Your task to perform on an android device: Search for duracell triple a on target.com, select the first entry, and add it to the cart. Image 0: 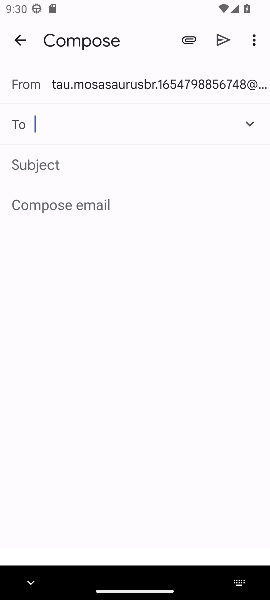
Step 0: press home button
Your task to perform on an android device: Search for duracell triple a on target.com, select the first entry, and add it to the cart. Image 1: 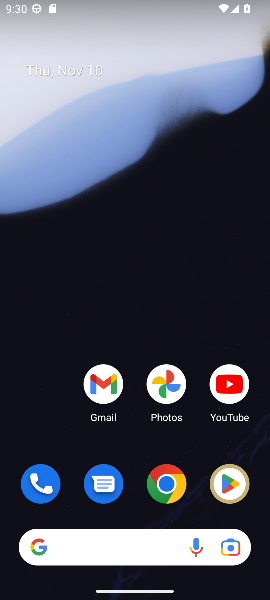
Step 1: click (174, 490)
Your task to perform on an android device: Search for duracell triple a on target.com, select the first entry, and add it to the cart. Image 2: 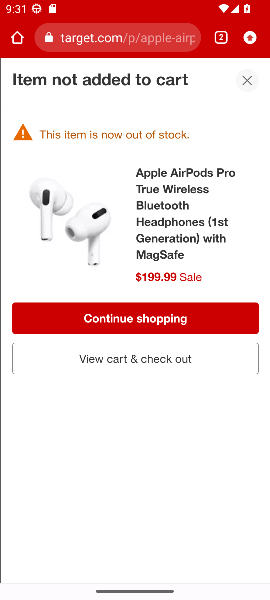
Step 2: click (248, 82)
Your task to perform on an android device: Search for duracell triple a on target.com, select the first entry, and add it to the cart. Image 3: 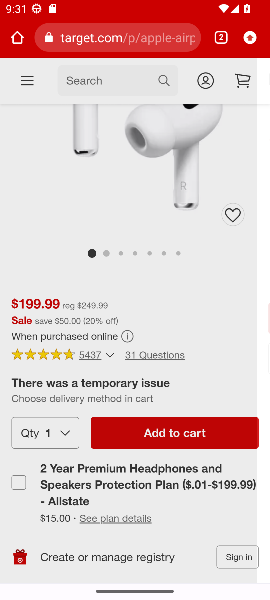
Step 3: click (160, 79)
Your task to perform on an android device: Search for duracell triple a on target.com, select the first entry, and add it to the cart. Image 4: 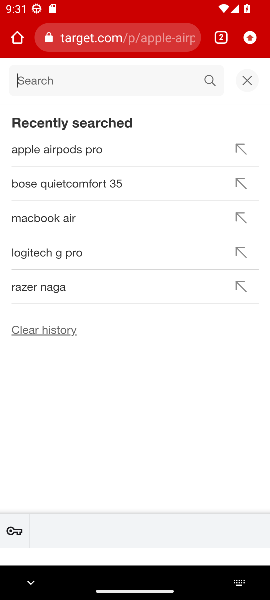
Step 4: type "duracell triple a"
Your task to perform on an android device: Search for duracell triple a on target.com, select the first entry, and add it to the cart. Image 5: 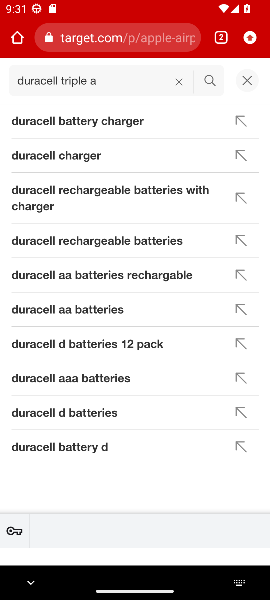
Step 5: click (209, 84)
Your task to perform on an android device: Search for duracell triple a on target.com, select the first entry, and add it to the cart. Image 6: 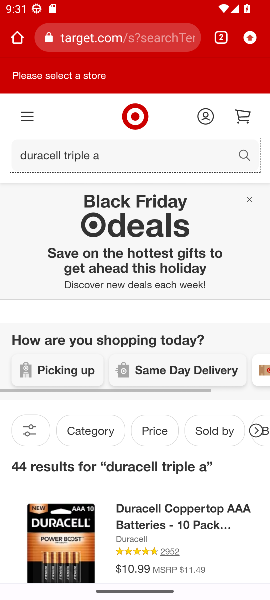
Step 6: drag from (105, 509) to (118, 296)
Your task to perform on an android device: Search for duracell triple a on target.com, select the first entry, and add it to the cart. Image 7: 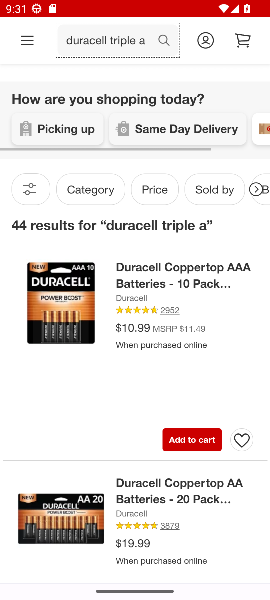
Step 7: click (197, 435)
Your task to perform on an android device: Search for duracell triple a on target.com, select the first entry, and add it to the cart. Image 8: 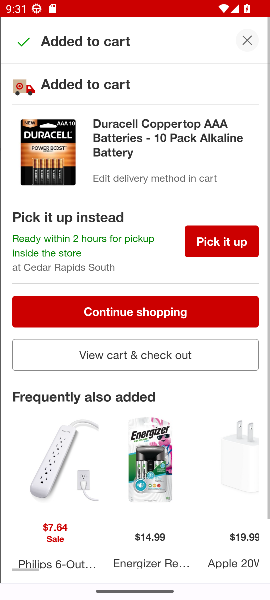
Step 8: task complete